Your task to perform on an android device: toggle javascript in the chrome app Image 0: 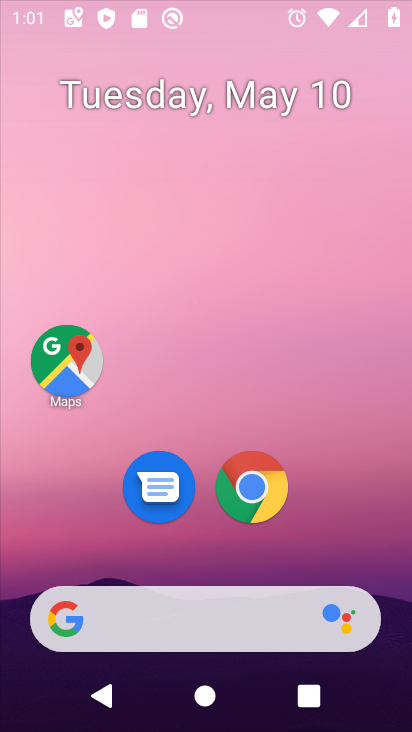
Step 0: click (365, 577)
Your task to perform on an android device: toggle javascript in the chrome app Image 1: 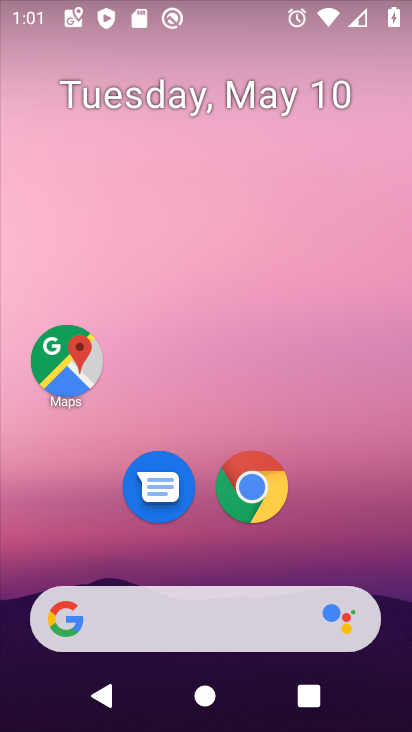
Step 1: click (254, 505)
Your task to perform on an android device: toggle javascript in the chrome app Image 2: 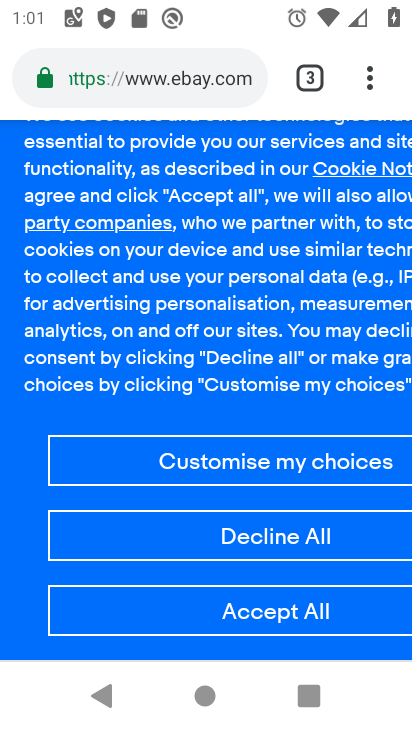
Step 2: click (367, 79)
Your task to perform on an android device: toggle javascript in the chrome app Image 3: 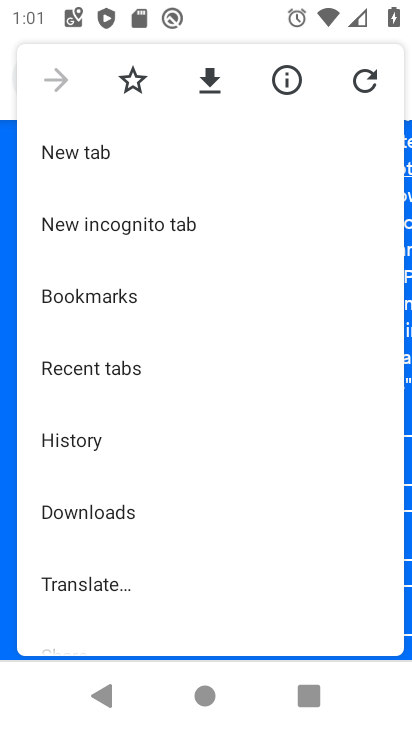
Step 3: drag from (189, 480) to (146, 249)
Your task to perform on an android device: toggle javascript in the chrome app Image 4: 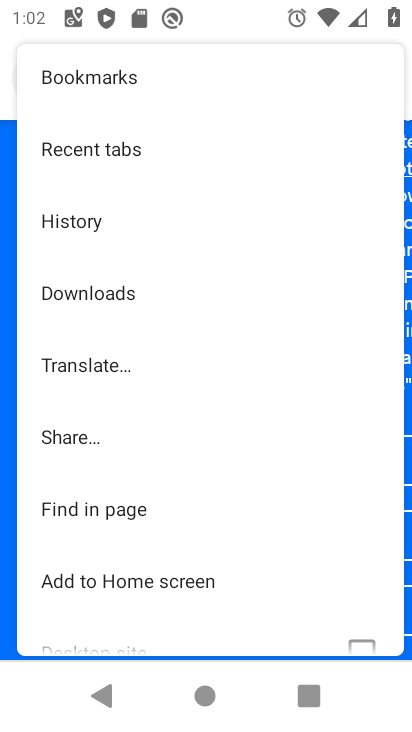
Step 4: drag from (200, 563) to (155, 275)
Your task to perform on an android device: toggle javascript in the chrome app Image 5: 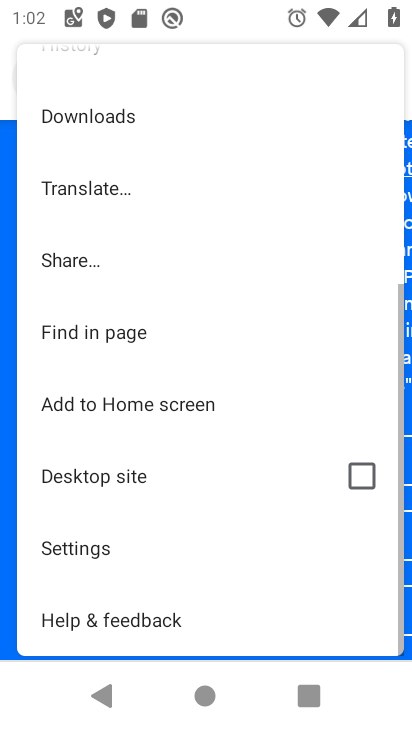
Step 5: click (243, 557)
Your task to perform on an android device: toggle javascript in the chrome app Image 6: 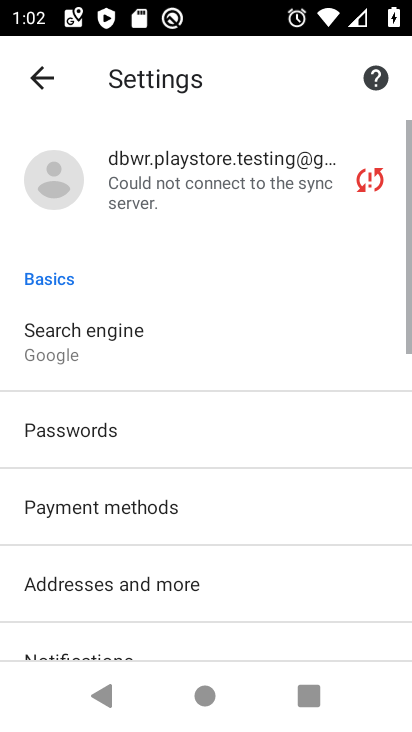
Step 6: drag from (243, 557) to (186, 262)
Your task to perform on an android device: toggle javascript in the chrome app Image 7: 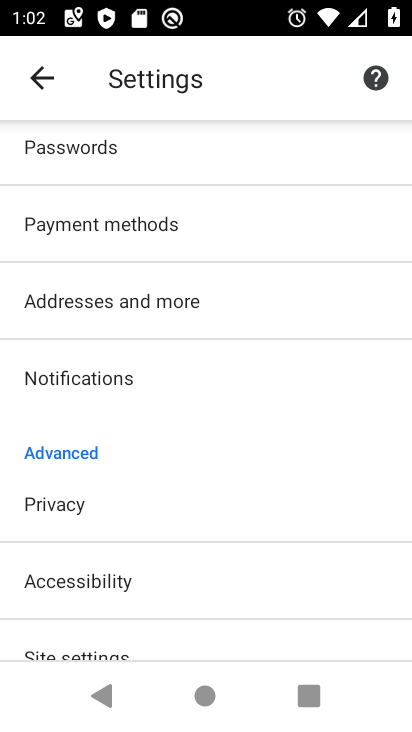
Step 7: drag from (184, 482) to (122, 230)
Your task to perform on an android device: toggle javascript in the chrome app Image 8: 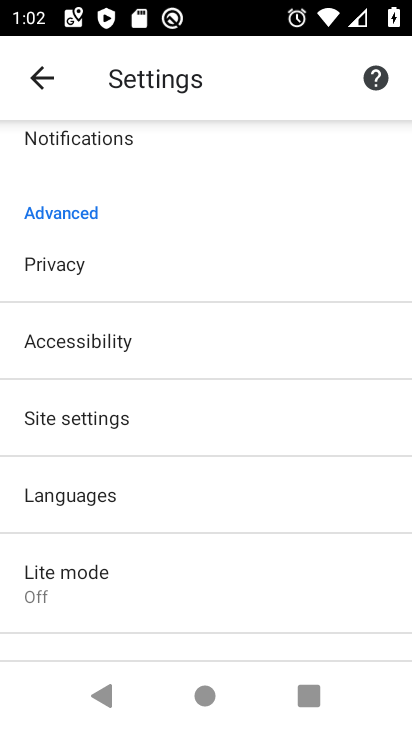
Step 8: click (138, 430)
Your task to perform on an android device: toggle javascript in the chrome app Image 9: 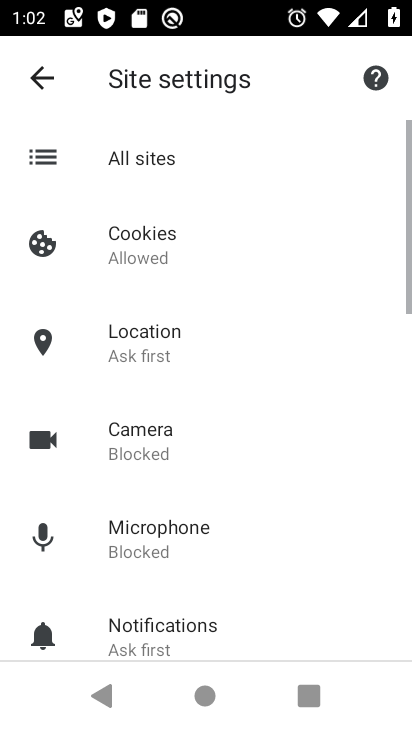
Step 9: drag from (174, 579) to (133, 272)
Your task to perform on an android device: toggle javascript in the chrome app Image 10: 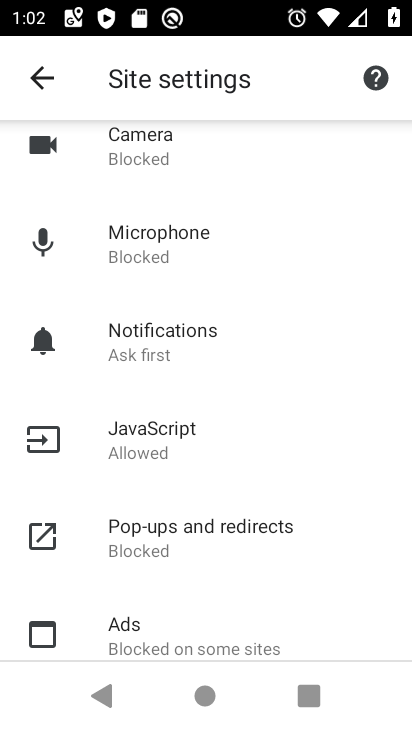
Step 10: click (178, 441)
Your task to perform on an android device: toggle javascript in the chrome app Image 11: 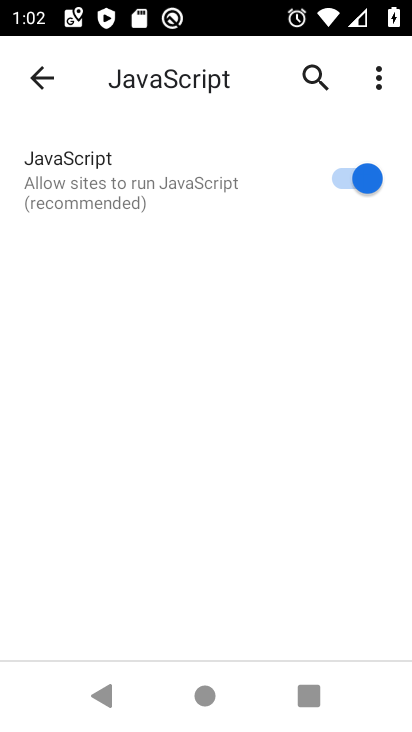
Step 11: click (357, 163)
Your task to perform on an android device: toggle javascript in the chrome app Image 12: 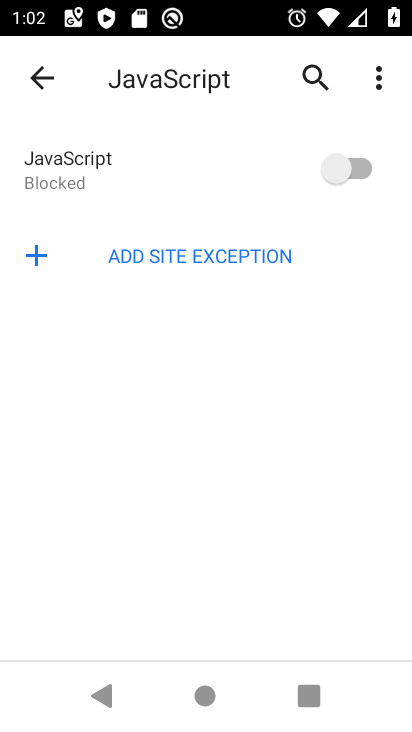
Step 12: task complete